Your task to perform on an android device: Open Chrome and go to settings Image 0: 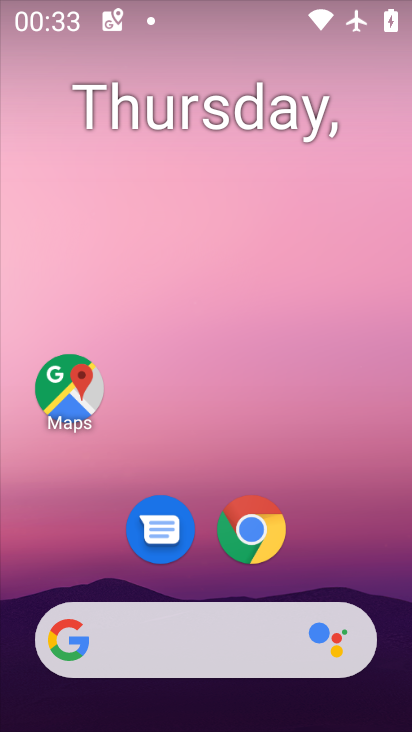
Step 0: click (251, 527)
Your task to perform on an android device: Open Chrome and go to settings Image 1: 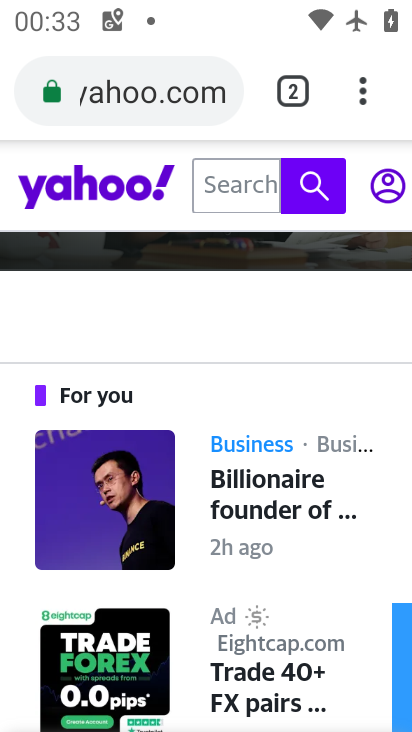
Step 1: click (361, 101)
Your task to perform on an android device: Open Chrome and go to settings Image 2: 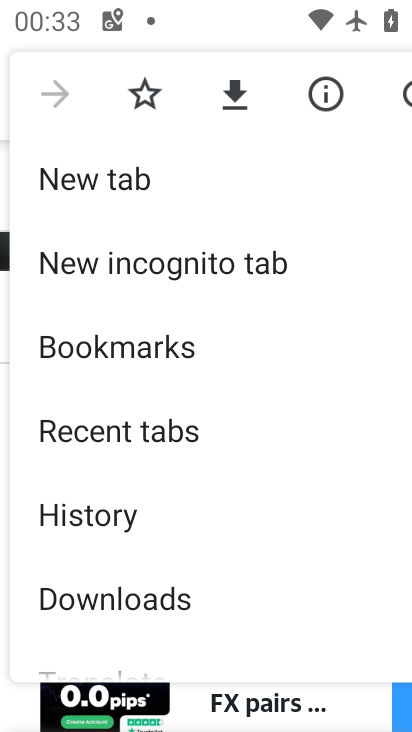
Step 2: drag from (258, 603) to (316, 214)
Your task to perform on an android device: Open Chrome and go to settings Image 3: 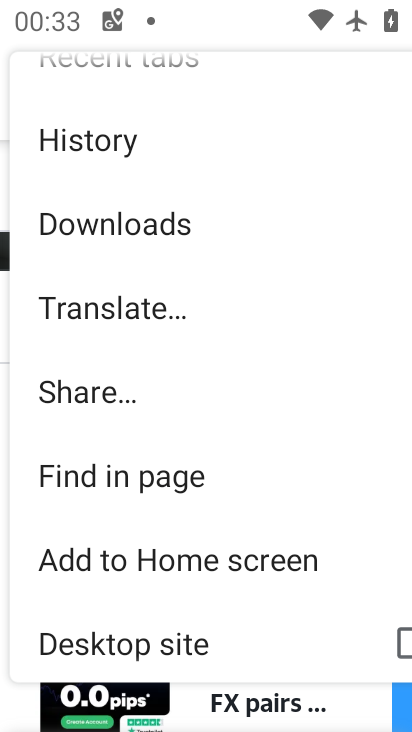
Step 3: drag from (356, 557) to (296, 168)
Your task to perform on an android device: Open Chrome and go to settings Image 4: 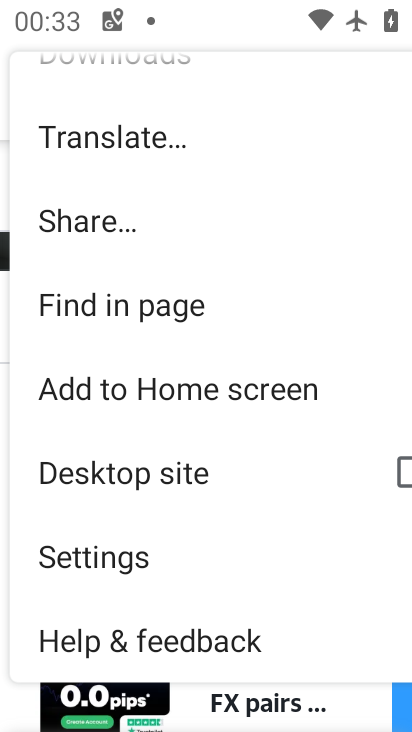
Step 4: click (101, 559)
Your task to perform on an android device: Open Chrome and go to settings Image 5: 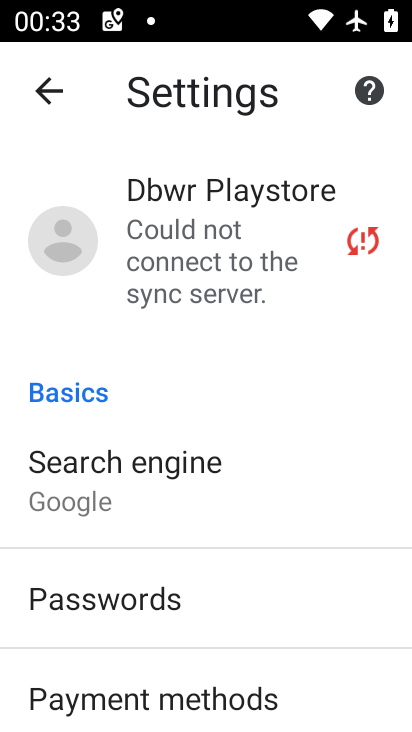
Step 5: task complete